Your task to perform on an android device: check google app version Image 0: 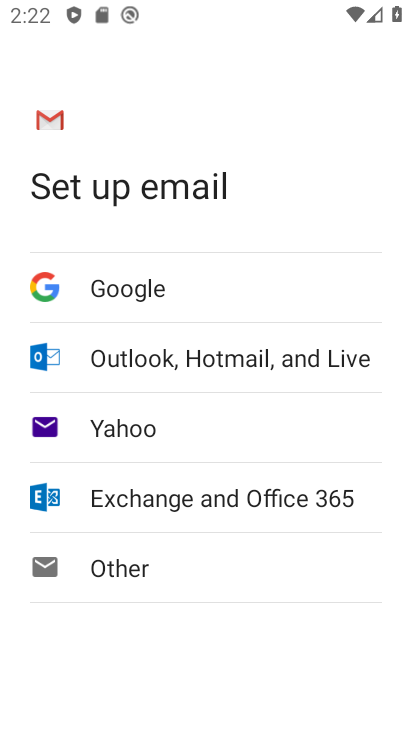
Step 0: press home button
Your task to perform on an android device: check google app version Image 1: 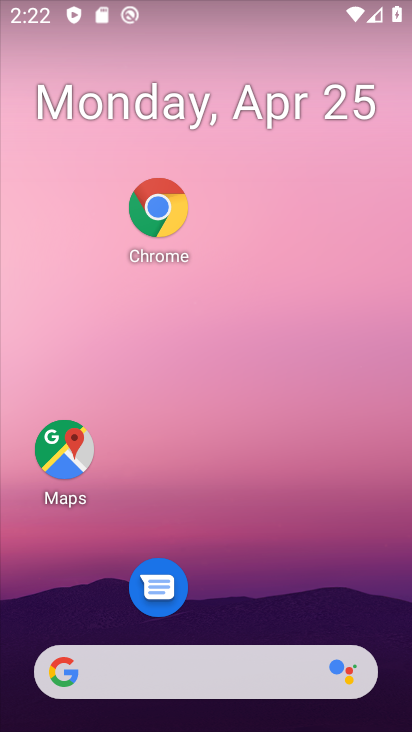
Step 1: click (250, 589)
Your task to perform on an android device: check google app version Image 2: 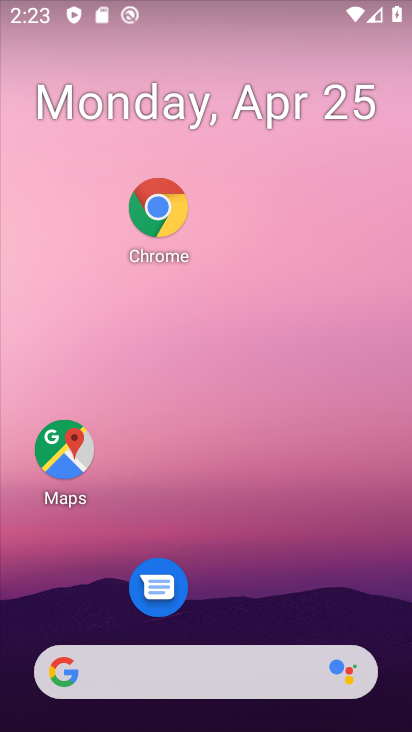
Step 2: drag from (276, 603) to (158, 134)
Your task to perform on an android device: check google app version Image 3: 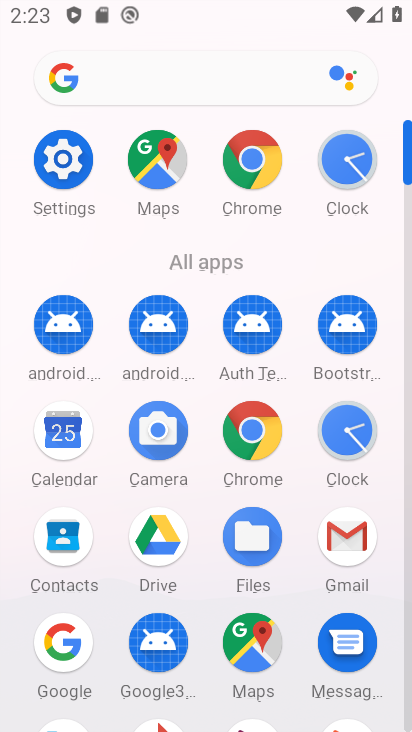
Step 3: click (61, 633)
Your task to perform on an android device: check google app version Image 4: 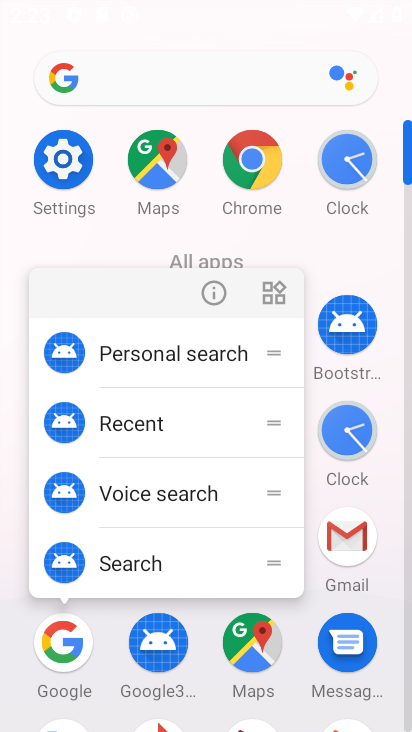
Step 4: click (202, 286)
Your task to perform on an android device: check google app version Image 5: 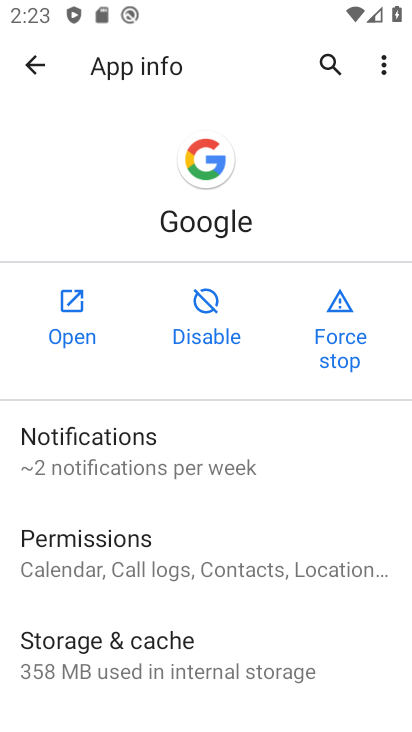
Step 5: drag from (242, 617) to (318, 146)
Your task to perform on an android device: check google app version Image 6: 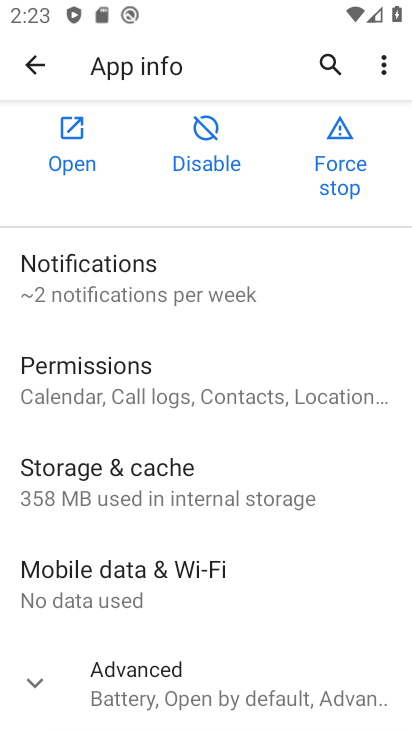
Step 6: click (318, 146)
Your task to perform on an android device: check google app version Image 7: 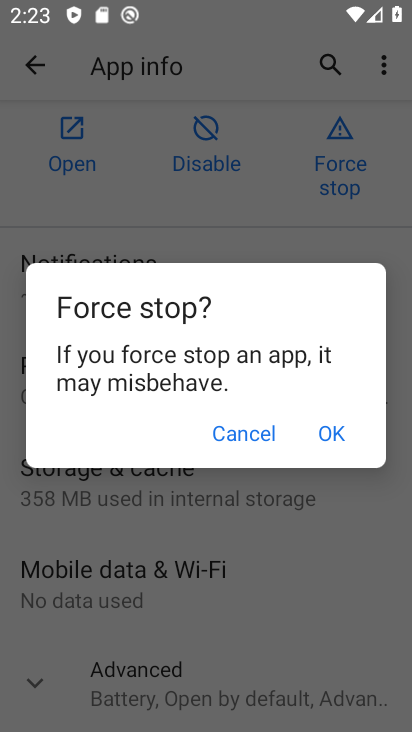
Step 7: drag from (226, 686) to (282, 545)
Your task to perform on an android device: check google app version Image 8: 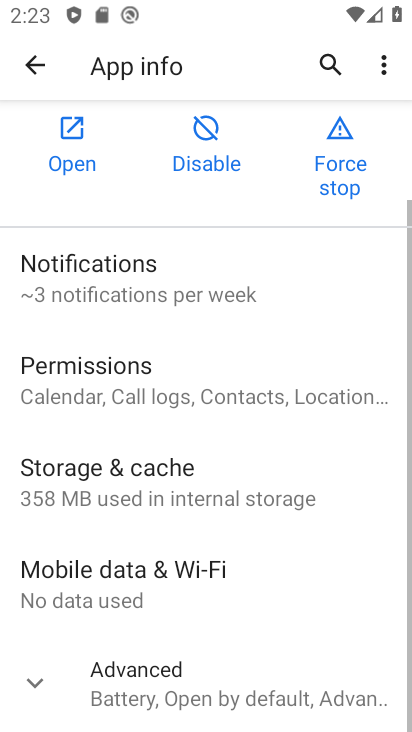
Step 8: click (258, 694)
Your task to perform on an android device: check google app version Image 9: 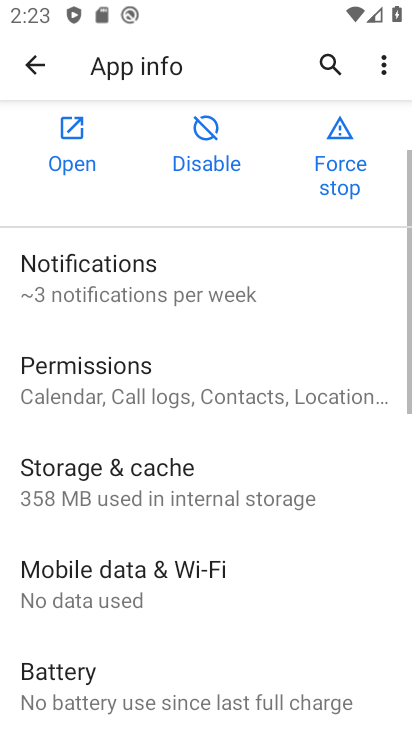
Step 9: task complete